Your task to perform on an android device: Go to Google Image 0: 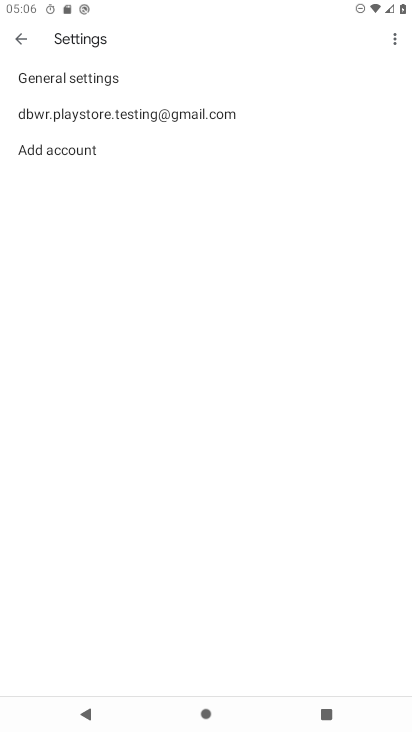
Step 0: press home button
Your task to perform on an android device: Go to Google Image 1: 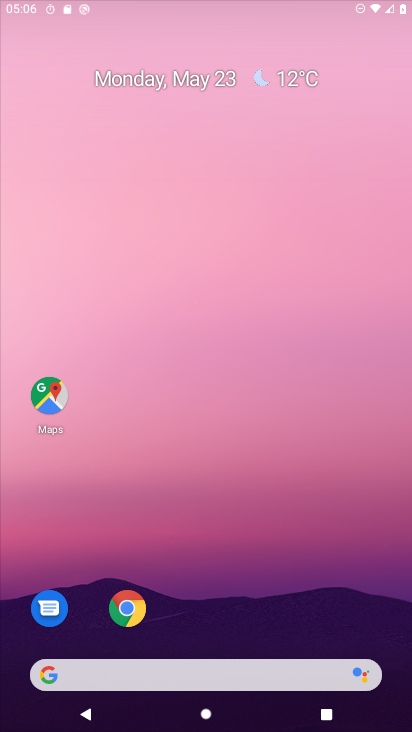
Step 1: drag from (266, 575) to (144, 66)
Your task to perform on an android device: Go to Google Image 2: 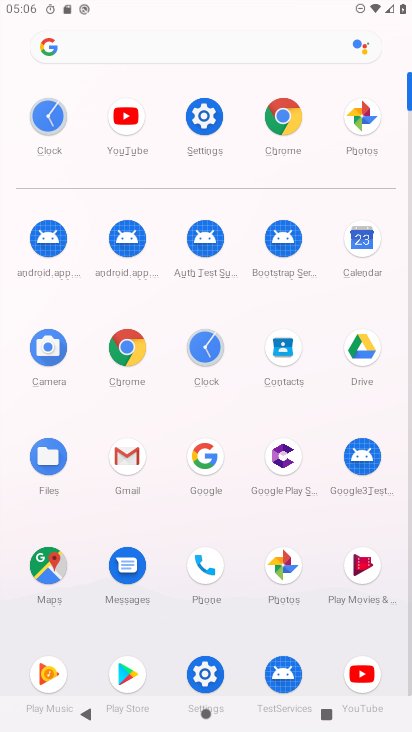
Step 2: click (213, 457)
Your task to perform on an android device: Go to Google Image 3: 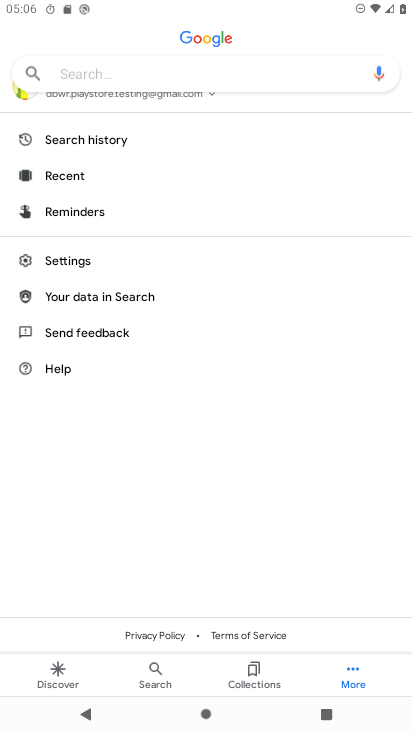
Step 3: task complete